Your task to perform on an android device: turn vacation reply on in the gmail app Image 0: 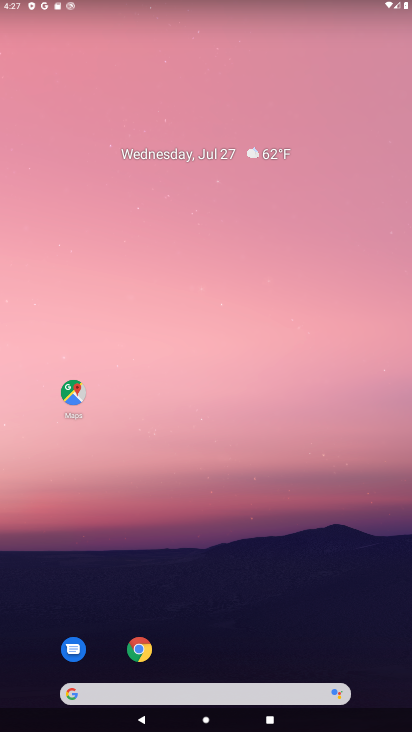
Step 0: drag from (251, 594) to (188, 194)
Your task to perform on an android device: turn vacation reply on in the gmail app Image 1: 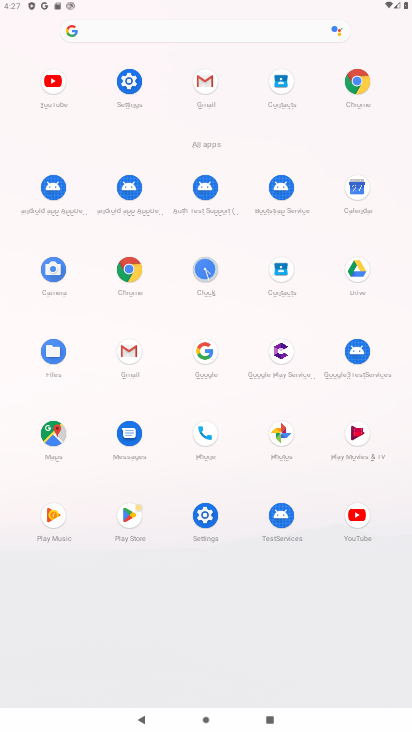
Step 1: click (133, 351)
Your task to perform on an android device: turn vacation reply on in the gmail app Image 2: 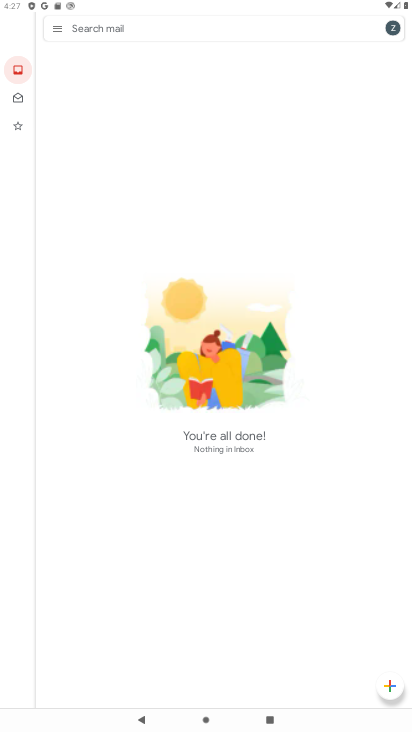
Step 2: task complete